Your task to perform on an android device: star an email in the gmail app Image 0: 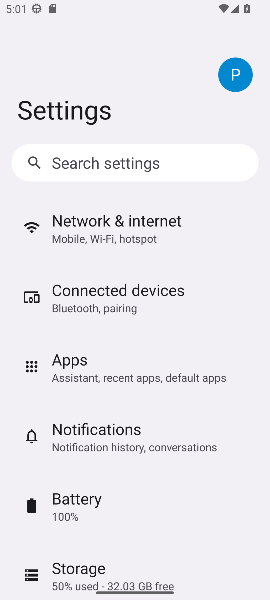
Step 0: press home button
Your task to perform on an android device: star an email in the gmail app Image 1: 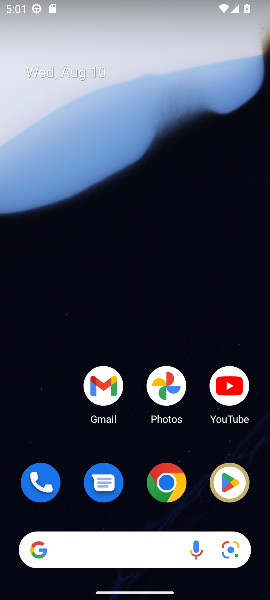
Step 1: click (99, 389)
Your task to perform on an android device: star an email in the gmail app Image 2: 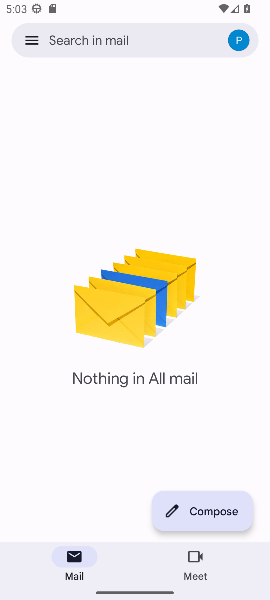
Step 2: task complete